Your task to perform on an android device: set default search engine in the chrome app Image 0: 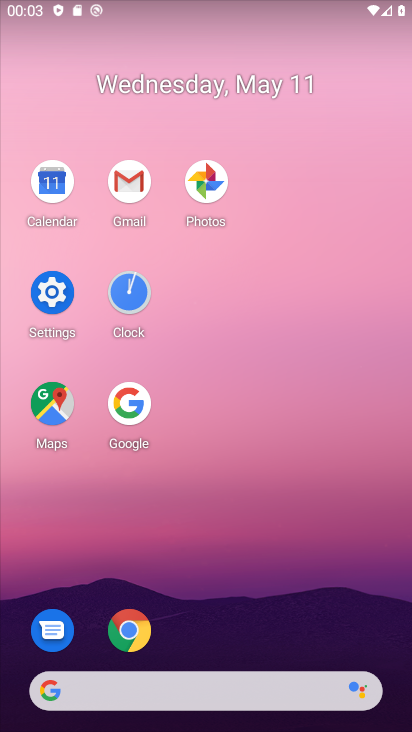
Step 0: click (138, 632)
Your task to perform on an android device: set default search engine in the chrome app Image 1: 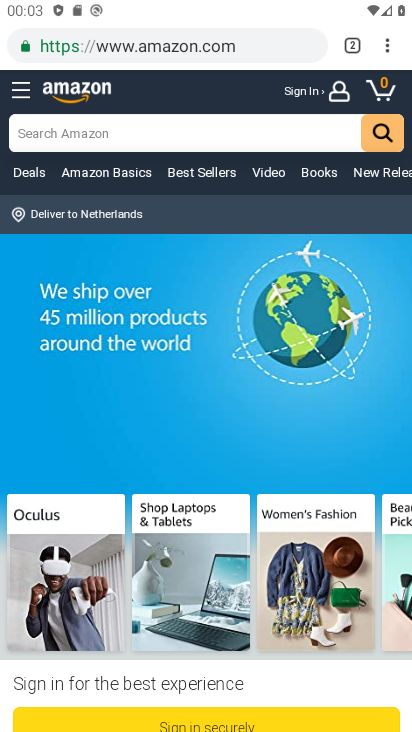
Step 1: click (393, 41)
Your task to perform on an android device: set default search engine in the chrome app Image 2: 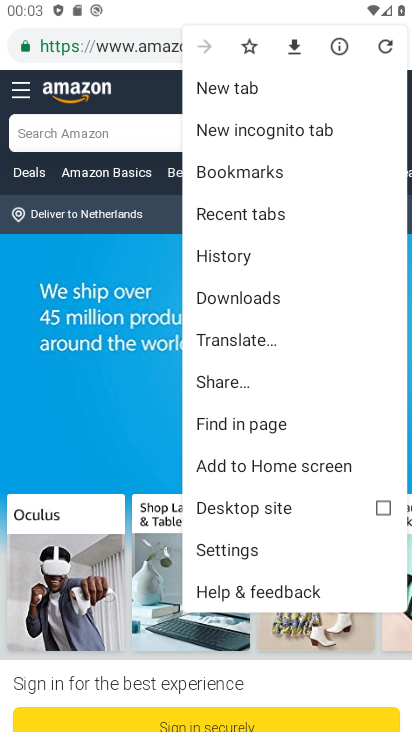
Step 2: click (268, 541)
Your task to perform on an android device: set default search engine in the chrome app Image 3: 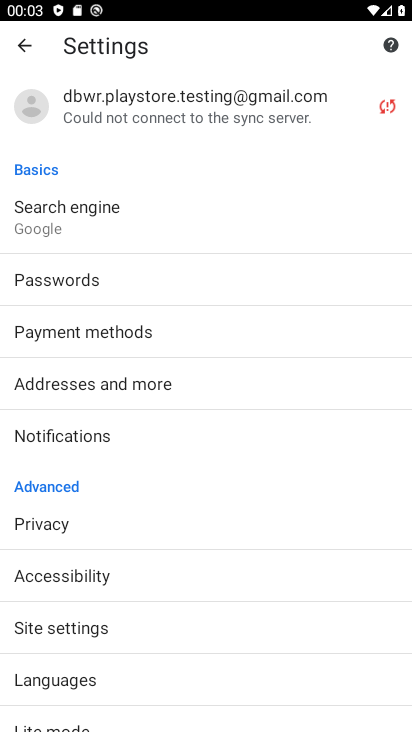
Step 3: click (215, 201)
Your task to perform on an android device: set default search engine in the chrome app Image 4: 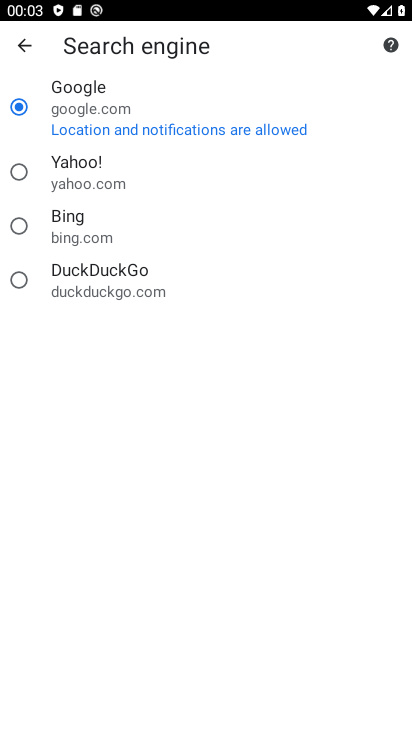
Step 4: task complete